Your task to perform on an android device: remove spam from my inbox in the gmail app Image 0: 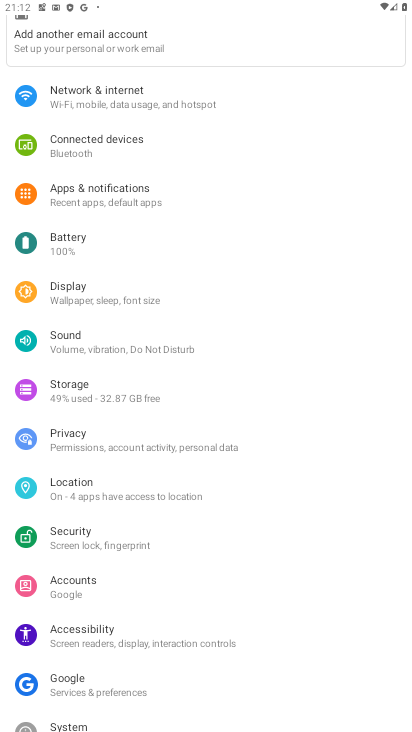
Step 0: press home button
Your task to perform on an android device: remove spam from my inbox in the gmail app Image 1: 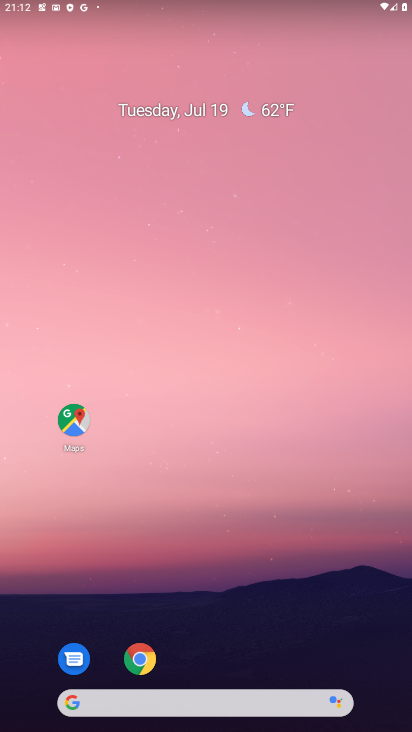
Step 1: drag from (257, 644) to (279, 34)
Your task to perform on an android device: remove spam from my inbox in the gmail app Image 2: 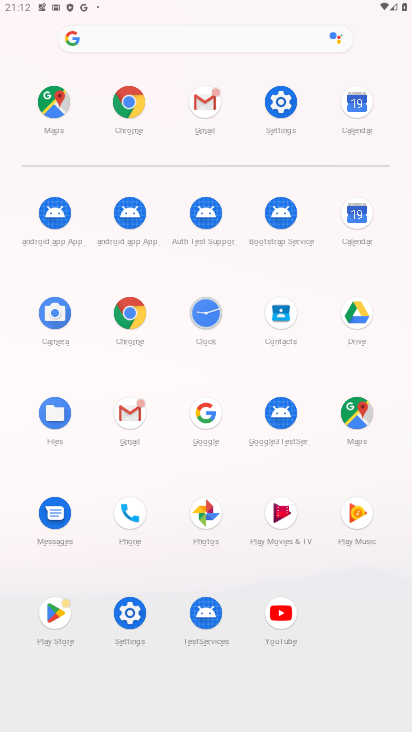
Step 2: click (222, 118)
Your task to perform on an android device: remove spam from my inbox in the gmail app Image 3: 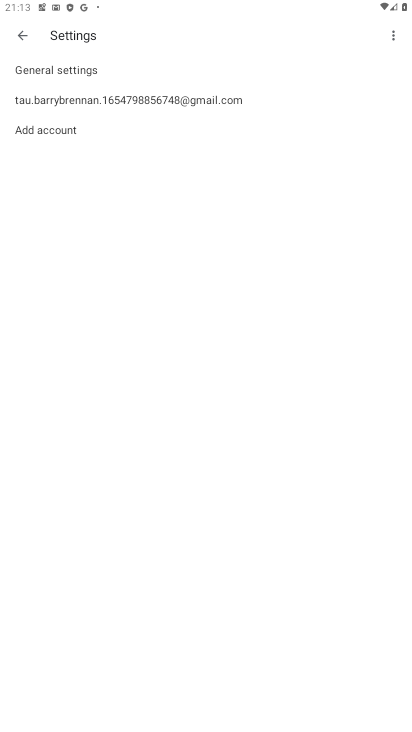
Step 3: click (24, 29)
Your task to perform on an android device: remove spam from my inbox in the gmail app Image 4: 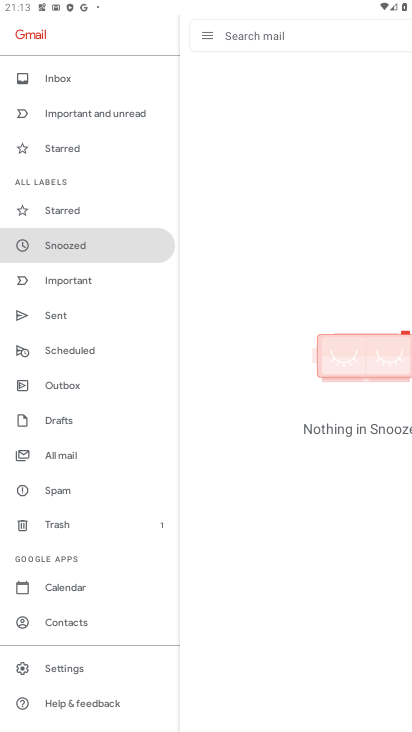
Step 4: click (51, 82)
Your task to perform on an android device: remove spam from my inbox in the gmail app Image 5: 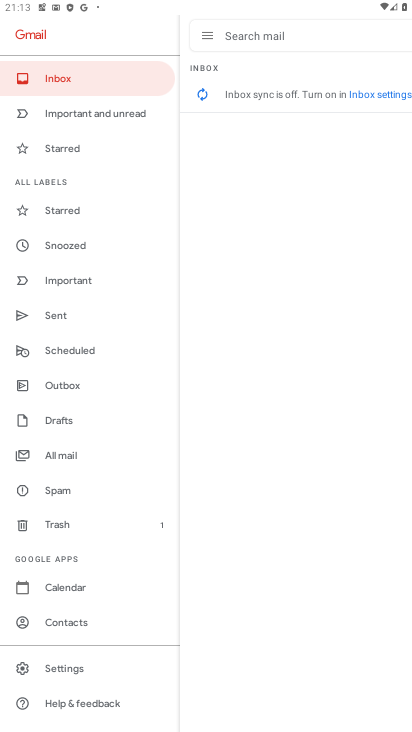
Step 5: task complete